Your task to perform on an android device: open app "Facebook Lite" (install if not already installed) and enter user name: "suppers@inbox.com" and password: "downplayed" Image 0: 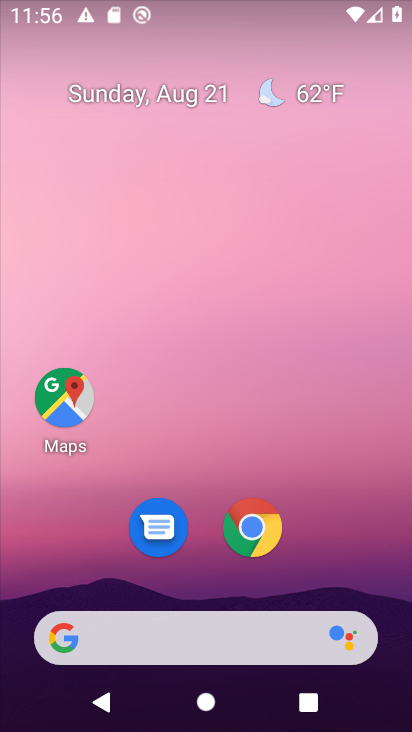
Step 0: drag from (186, 593) to (265, 96)
Your task to perform on an android device: open app "Facebook Lite" (install if not already installed) and enter user name: "suppers@inbox.com" and password: "downplayed" Image 1: 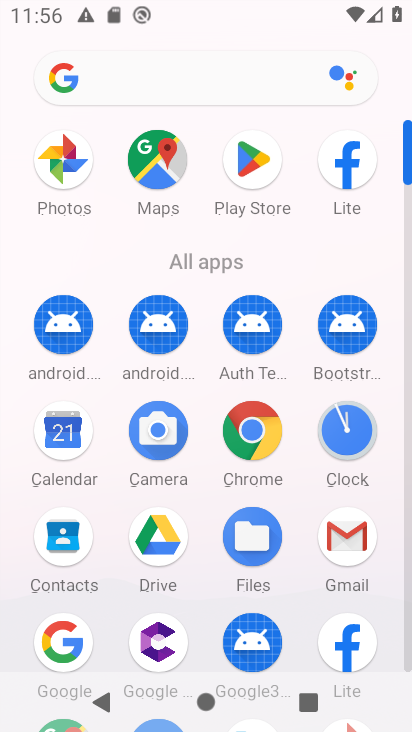
Step 1: click (261, 161)
Your task to perform on an android device: open app "Facebook Lite" (install if not already installed) and enter user name: "suppers@inbox.com" and password: "downplayed" Image 2: 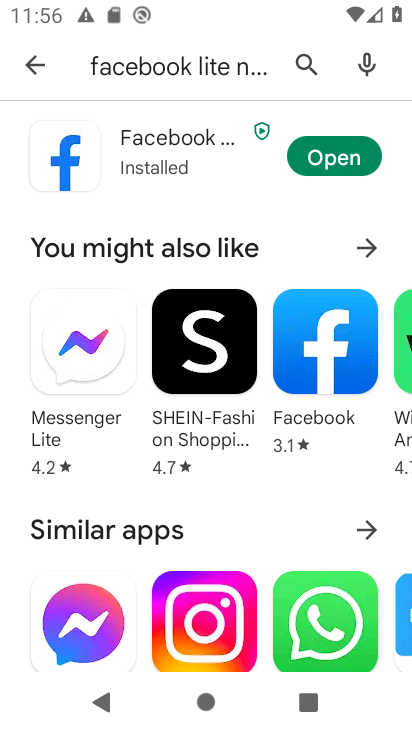
Step 2: click (305, 59)
Your task to perform on an android device: open app "Facebook Lite" (install if not already installed) and enter user name: "suppers@inbox.com" and password: "downplayed" Image 3: 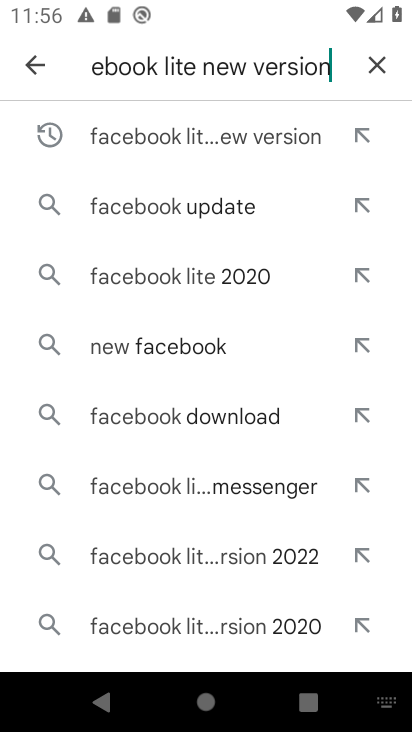
Step 3: click (373, 68)
Your task to perform on an android device: open app "Facebook Lite" (install if not already installed) and enter user name: "suppers@inbox.com" and password: "downplayed" Image 4: 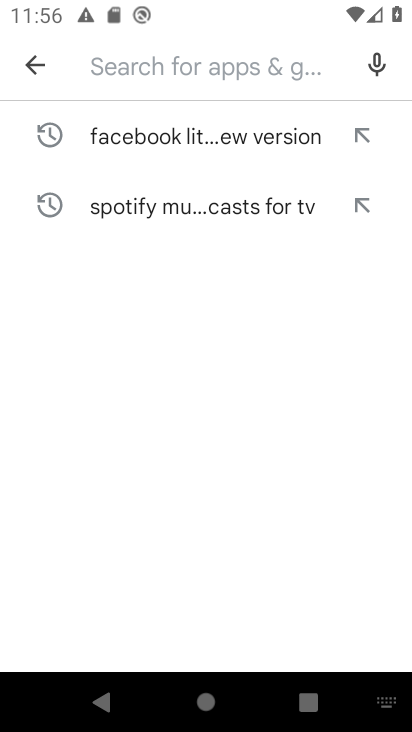
Step 4: click (109, 72)
Your task to perform on an android device: open app "Facebook Lite" (install if not already installed) and enter user name: "suppers@inbox.com" and password: "downplayed" Image 5: 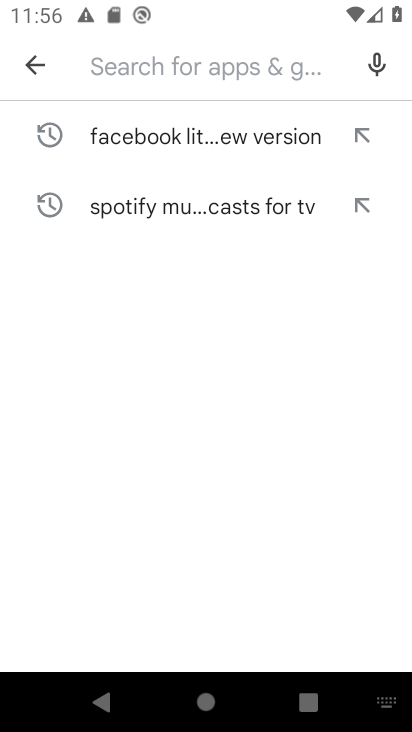
Step 5: type "facebook lite"
Your task to perform on an android device: open app "Facebook Lite" (install if not already installed) and enter user name: "suppers@inbox.com" and password: "downplayed" Image 6: 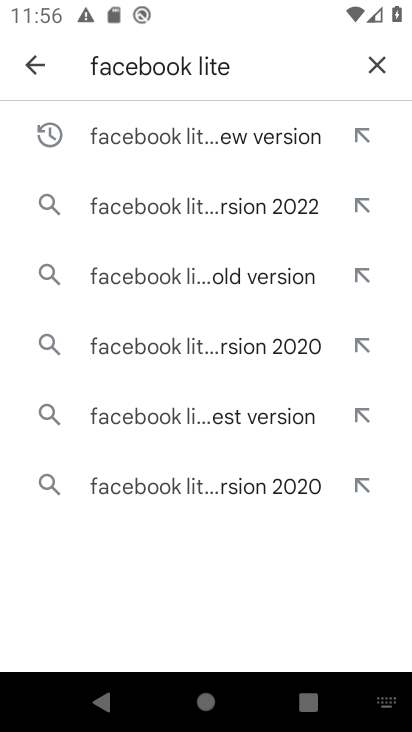
Step 6: click (183, 130)
Your task to perform on an android device: open app "Facebook Lite" (install if not already installed) and enter user name: "suppers@inbox.com" and password: "downplayed" Image 7: 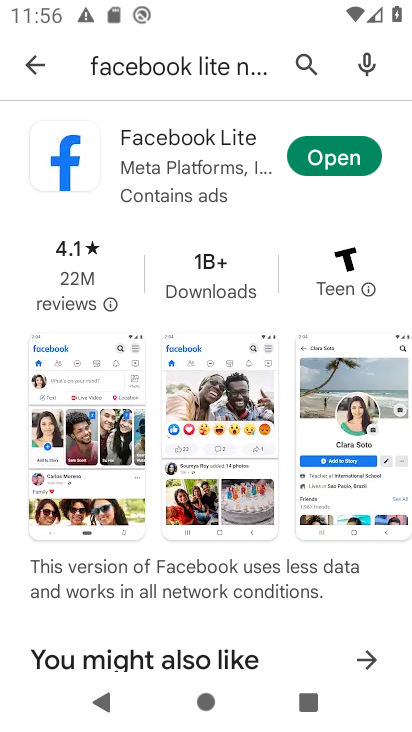
Step 7: click (302, 161)
Your task to perform on an android device: open app "Facebook Lite" (install if not already installed) and enter user name: "suppers@inbox.com" and password: "downplayed" Image 8: 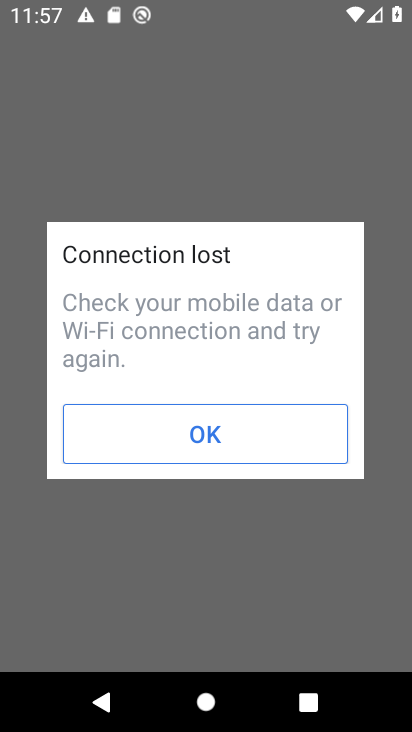
Step 8: task complete